Your task to perform on an android device: Open Google Chrome and click the shortcut for Amazon.com Image 0: 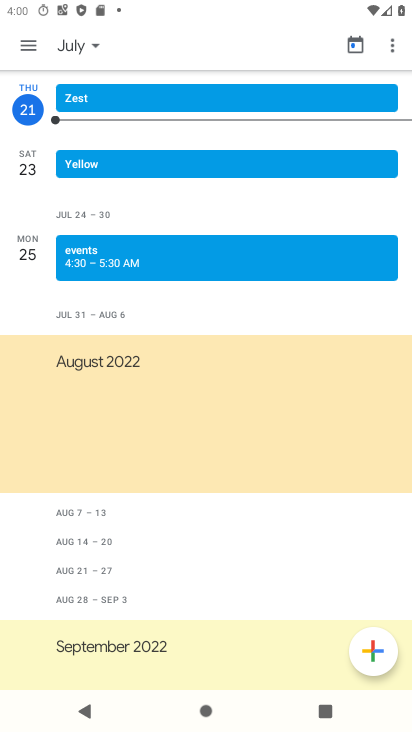
Step 0: press home button
Your task to perform on an android device: Open Google Chrome and click the shortcut for Amazon.com Image 1: 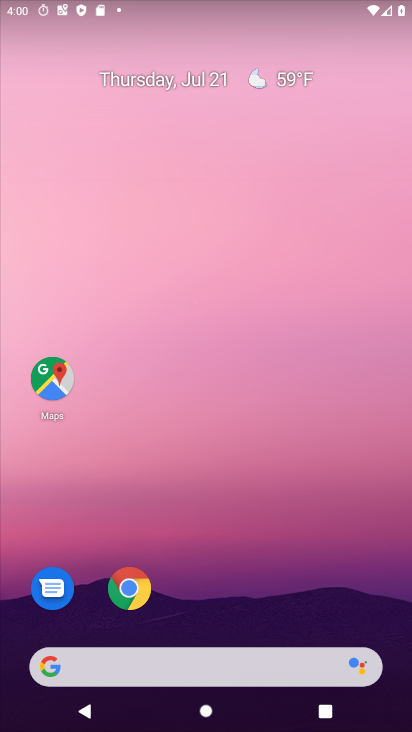
Step 1: click (131, 593)
Your task to perform on an android device: Open Google Chrome and click the shortcut for Amazon.com Image 2: 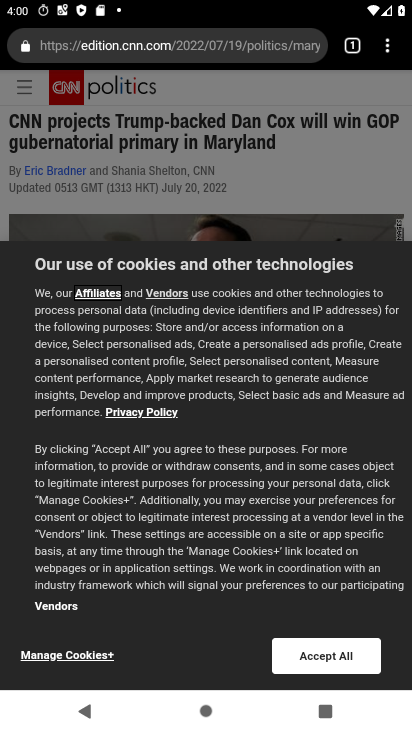
Step 2: drag from (82, 456) to (79, 333)
Your task to perform on an android device: Open Google Chrome and click the shortcut for Amazon.com Image 3: 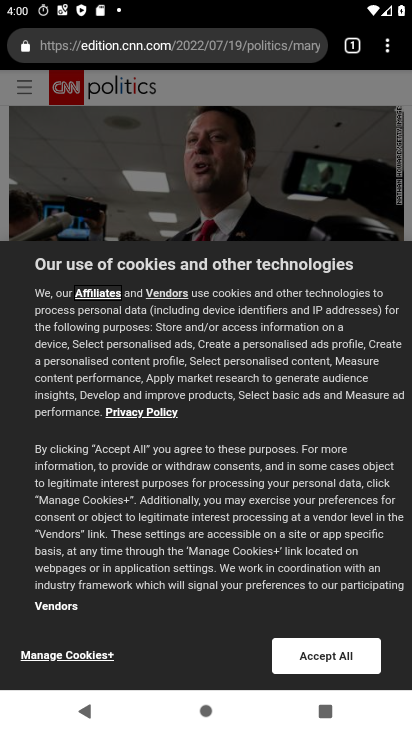
Step 3: click (387, 45)
Your task to perform on an android device: Open Google Chrome and click the shortcut for Amazon.com Image 4: 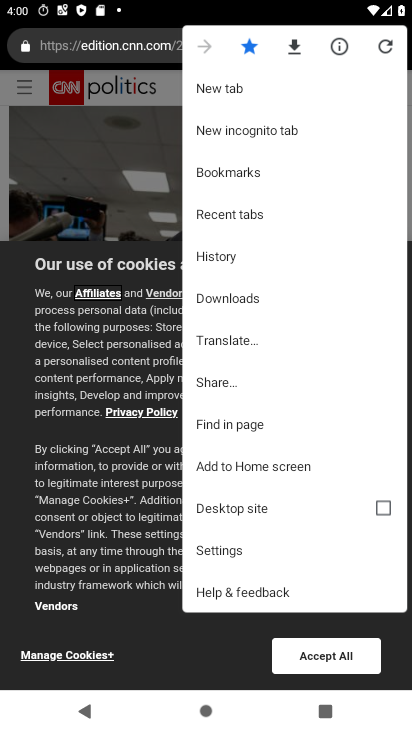
Step 4: click (233, 90)
Your task to perform on an android device: Open Google Chrome and click the shortcut for Amazon.com Image 5: 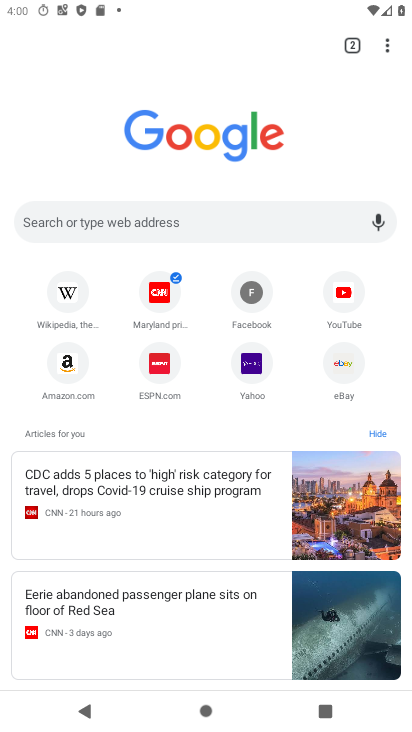
Step 5: click (61, 378)
Your task to perform on an android device: Open Google Chrome and click the shortcut for Amazon.com Image 6: 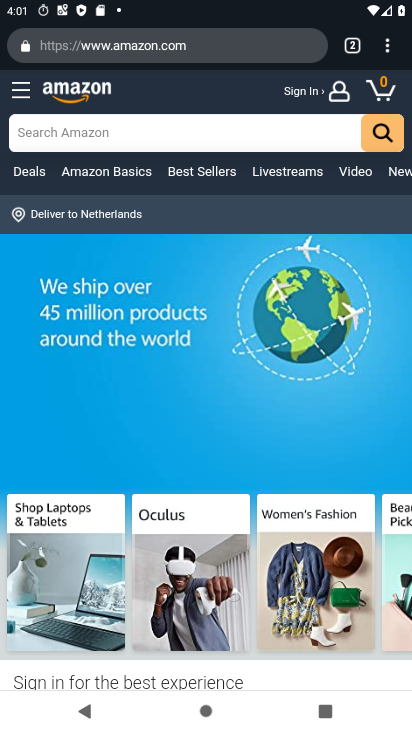
Step 6: task complete